Your task to perform on an android device: Go to calendar. Show me events next week Image 0: 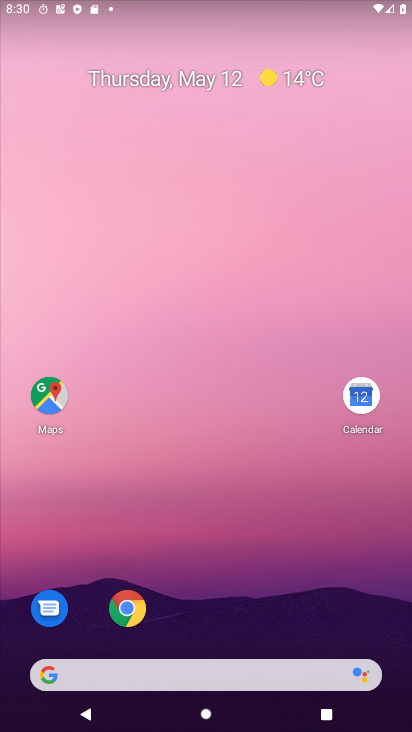
Step 0: drag from (295, 319) to (319, 0)
Your task to perform on an android device: Go to calendar. Show me events next week Image 1: 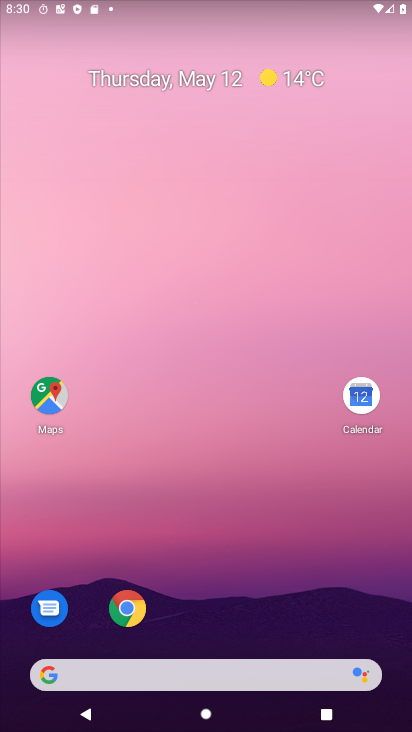
Step 1: click (209, 75)
Your task to perform on an android device: Go to calendar. Show me events next week Image 2: 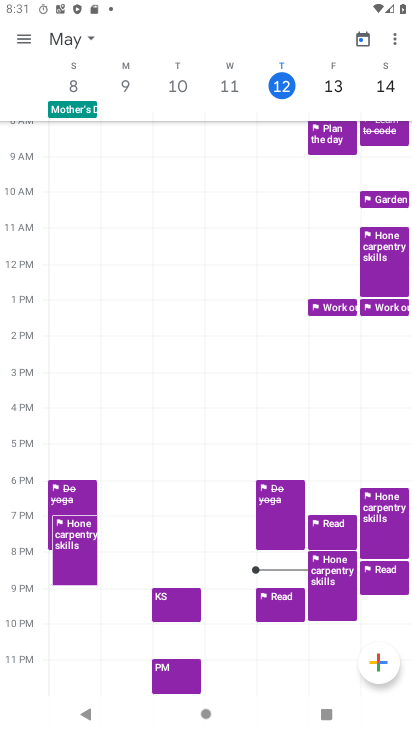
Step 2: click (32, 28)
Your task to perform on an android device: Go to calendar. Show me events next week Image 3: 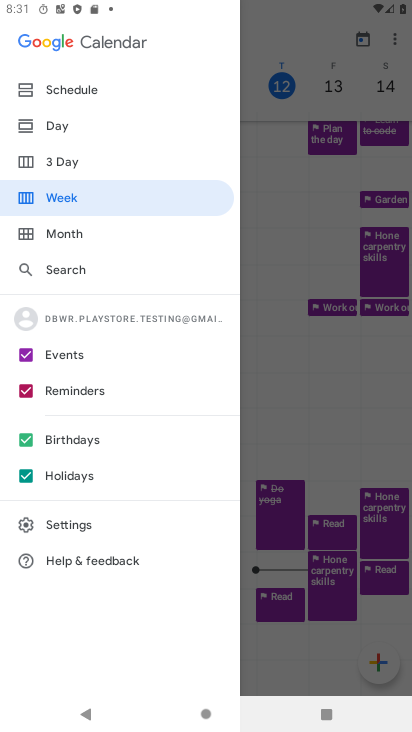
Step 3: click (143, 192)
Your task to perform on an android device: Go to calendar. Show me events next week Image 4: 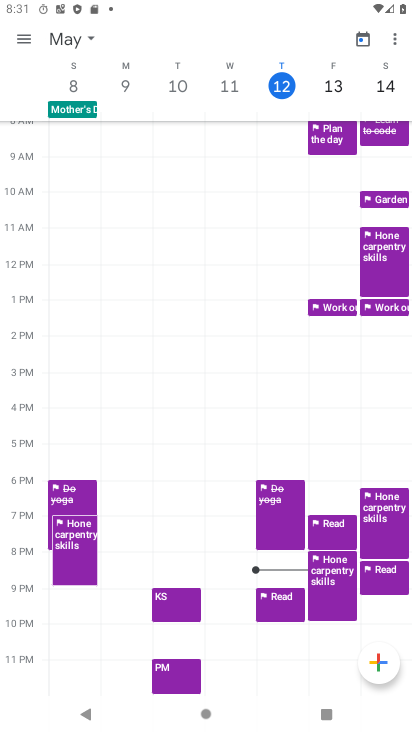
Step 4: task complete